Your task to perform on an android device: change notification settings in the gmail app Image 0: 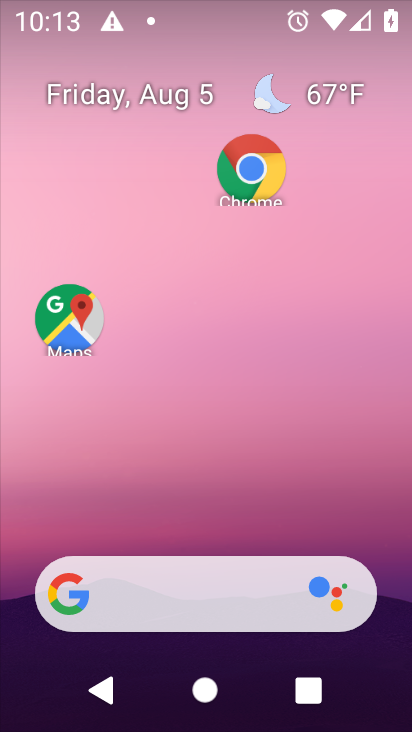
Step 0: drag from (183, 520) to (188, 111)
Your task to perform on an android device: change notification settings in the gmail app Image 1: 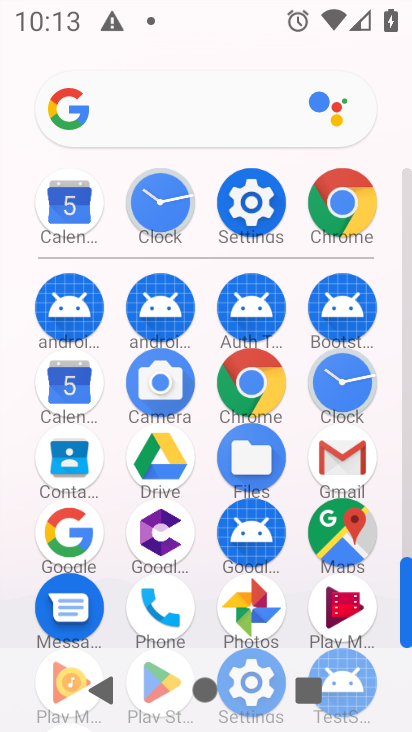
Step 1: click (324, 471)
Your task to perform on an android device: change notification settings in the gmail app Image 2: 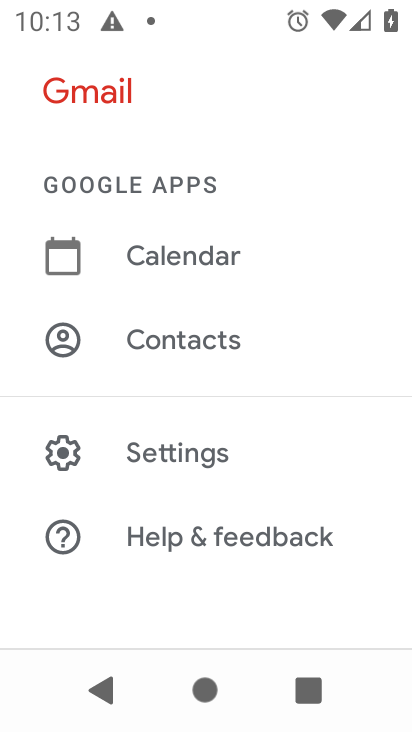
Step 2: click (178, 459)
Your task to perform on an android device: change notification settings in the gmail app Image 3: 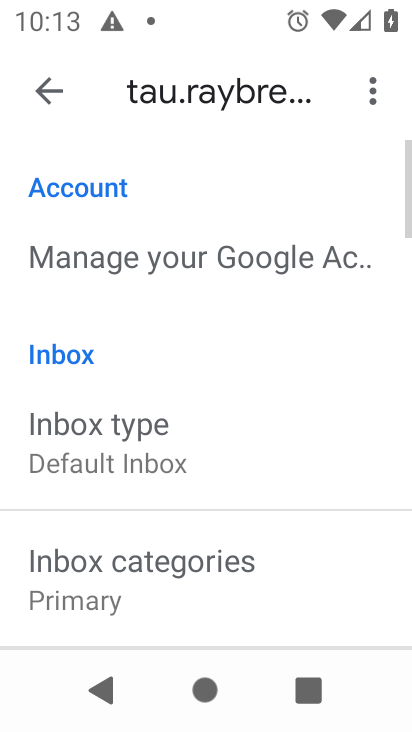
Step 3: drag from (215, 590) to (201, 257)
Your task to perform on an android device: change notification settings in the gmail app Image 4: 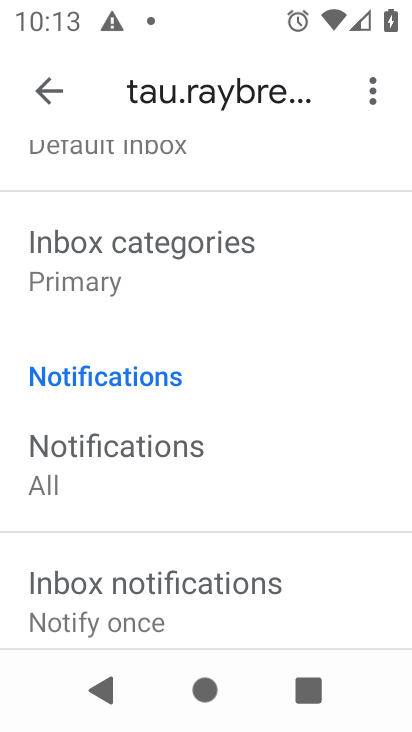
Step 4: drag from (255, 613) to (246, 305)
Your task to perform on an android device: change notification settings in the gmail app Image 5: 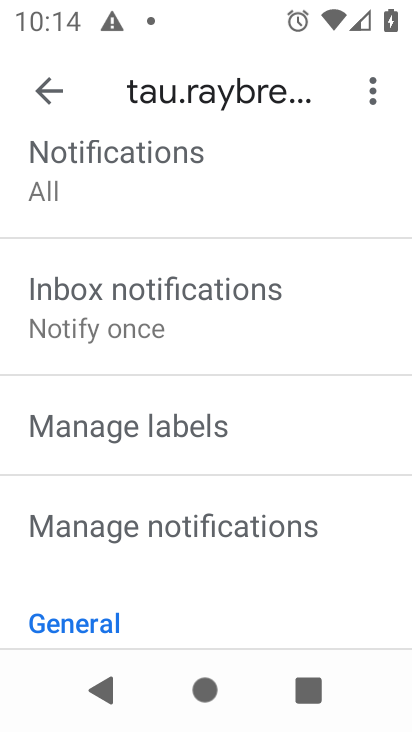
Step 5: click (177, 515)
Your task to perform on an android device: change notification settings in the gmail app Image 6: 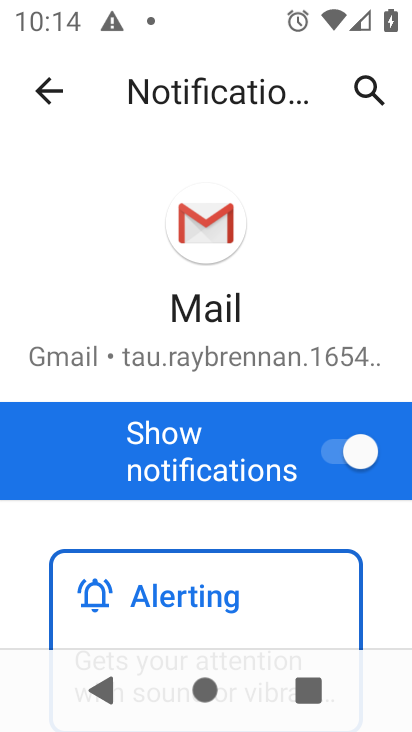
Step 6: drag from (239, 602) to (239, 288)
Your task to perform on an android device: change notification settings in the gmail app Image 7: 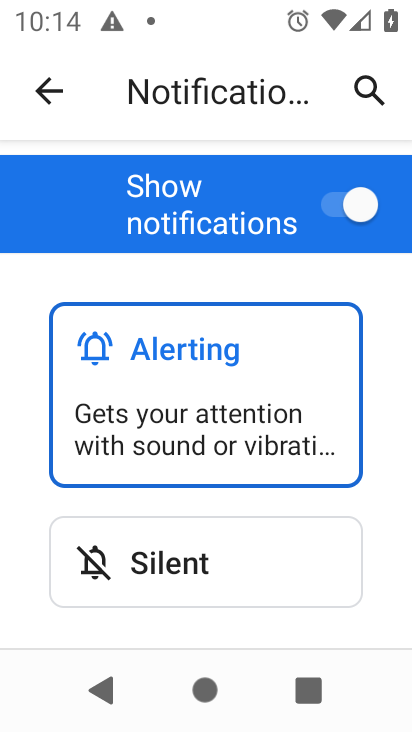
Step 7: click (341, 218)
Your task to perform on an android device: change notification settings in the gmail app Image 8: 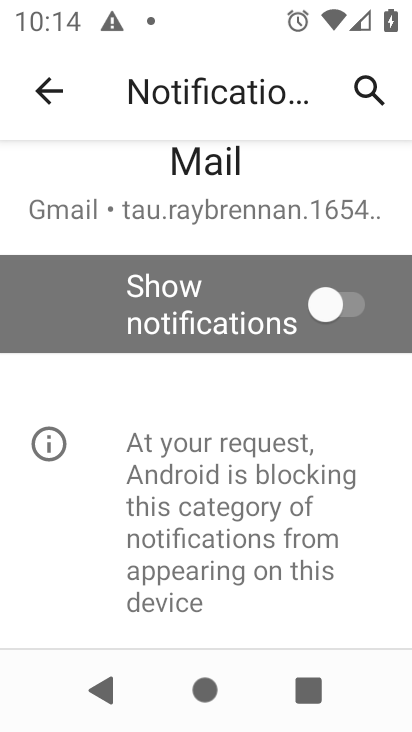
Step 8: task complete